Your task to perform on an android device: Open eBay Image 0: 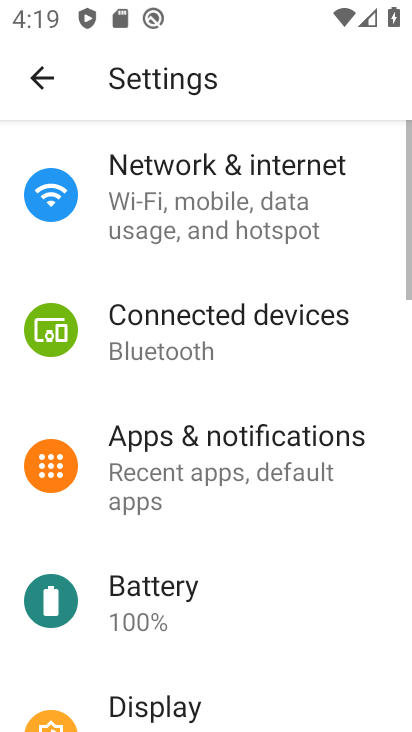
Step 0: press home button
Your task to perform on an android device: Open eBay Image 1: 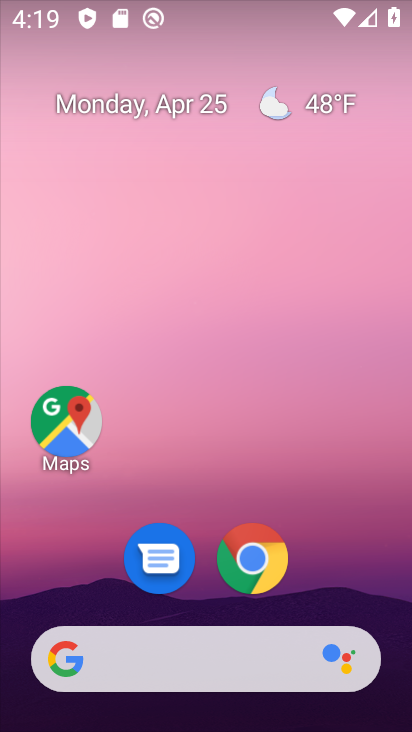
Step 1: drag from (339, 509) to (311, 159)
Your task to perform on an android device: Open eBay Image 2: 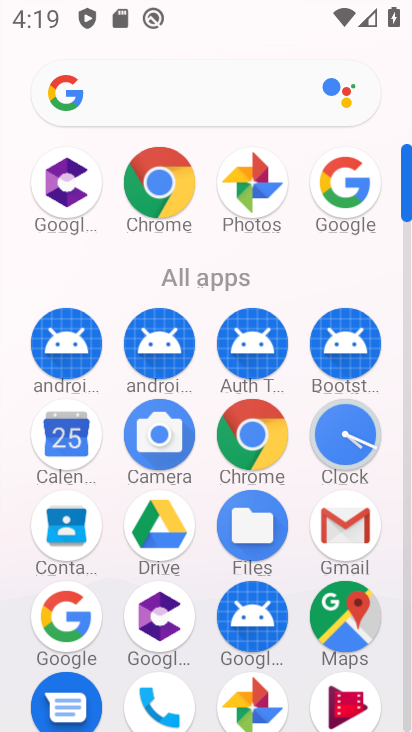
Step 2: click (159, 154)
Your task to perform on an android device: Open eBay Image 3: 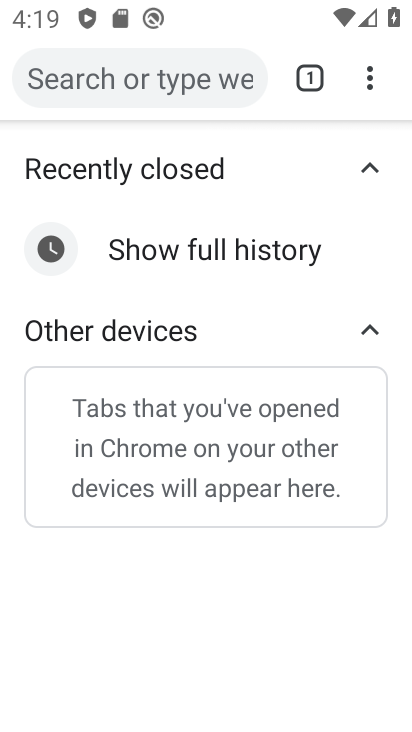
Step 3: click (196, 86)
Your task to perform on an android device: Open eBay Image 4: 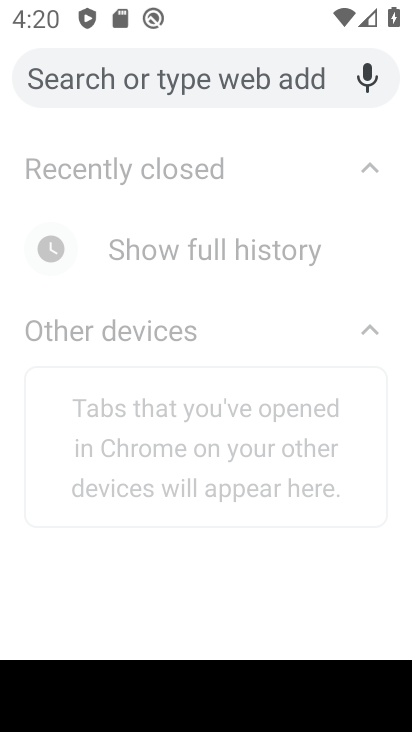
Step 4: type "ebay"
Your task to perform on an android device: Open eBay Image 5: 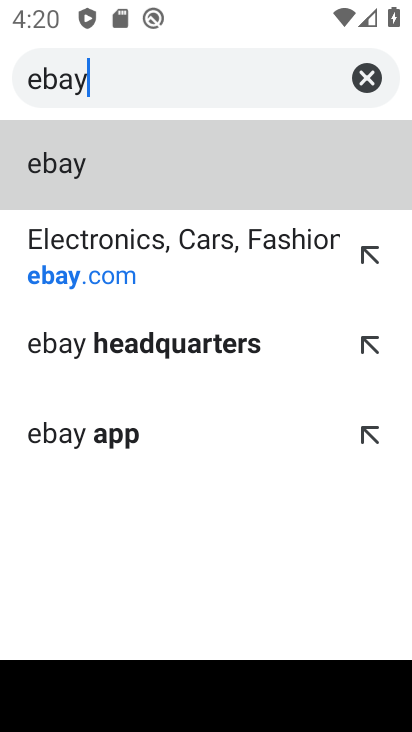
Step 5: click (105, 253)
Your task to perform on an android device: Open eBay Image 6: 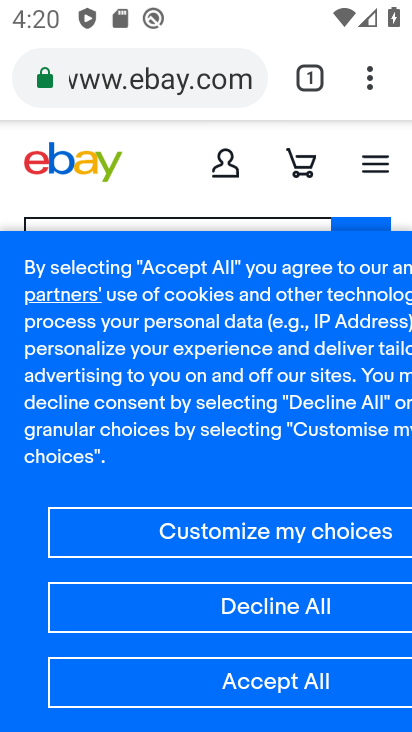
Step 6: task complete